Your task to perform on an android device: turn on notifications settings in the gmail app Image 0: 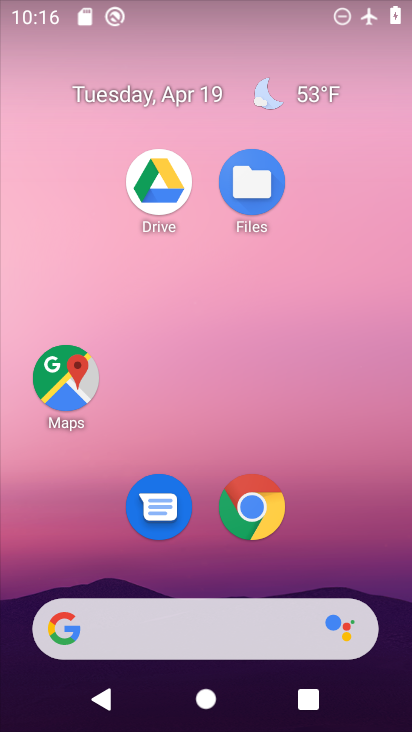
Step 0: drag from (334, 494) to (375, 103)
Your task to perform on an android device: turn on notifications settings in the gmail app Image 1: 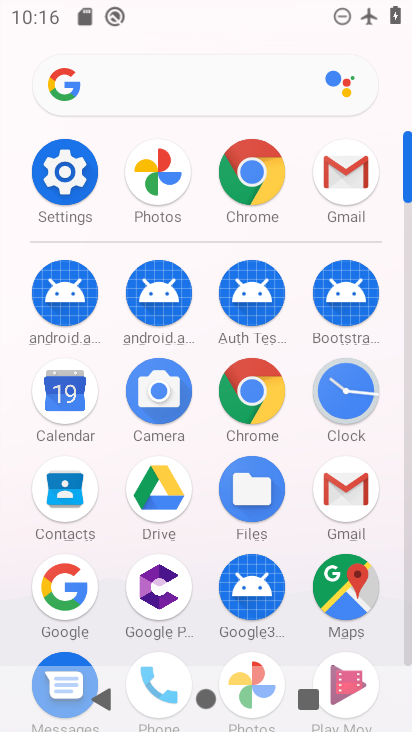
Step 1: click (354, 181)
Your task to perform on an android device: turn on notifications settings in the gmail app Image 2: 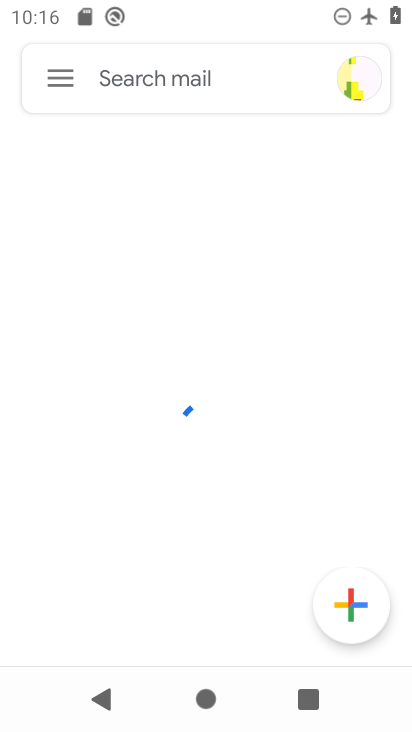
Step 2: click (55, 70)
Your task to perform on an android device: turn on notifications settings in the gmail app Image 3: 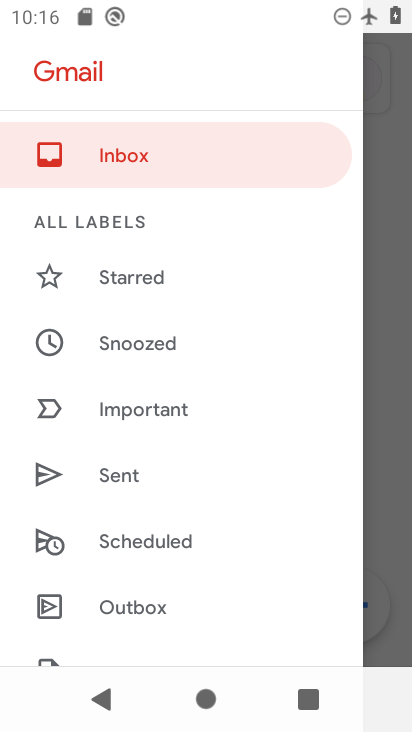
Step 3: drag from (201, 486) to (269, 126)
Your task to perform on an android device: turn on notifications settings in the gmail app Image 4: 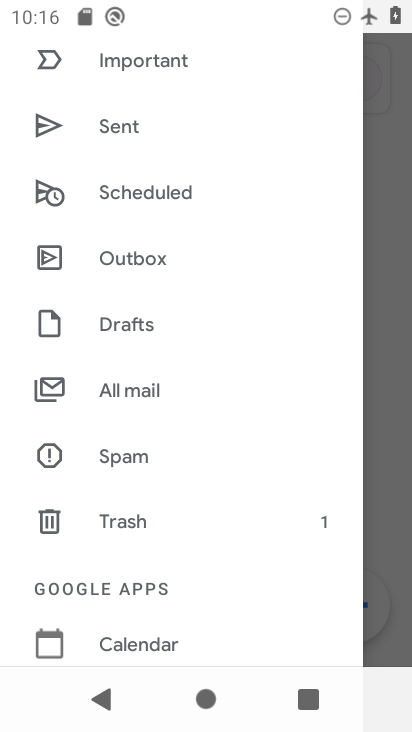
Step 4: drag from (218, 531) to (246, 210)
Your task to perform on an android device: turn on notifications settings in the gmail app Image 5: 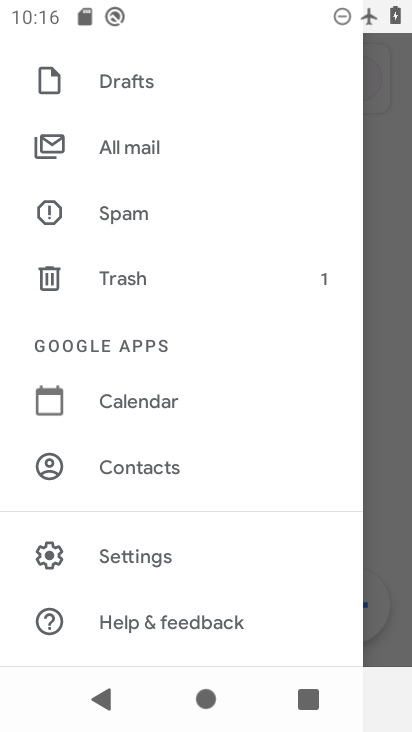
Step 5: click (152, 561)
Your task to perform on an android device: turn on notifications settings in the gmail app Image 6: 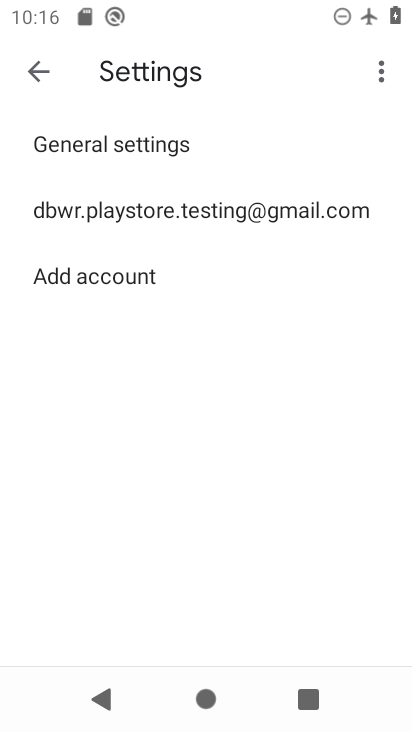
Step 6: click (275, 209)
Your task to perform on an android device: turn on notifications settings in the gmail app Image 7: 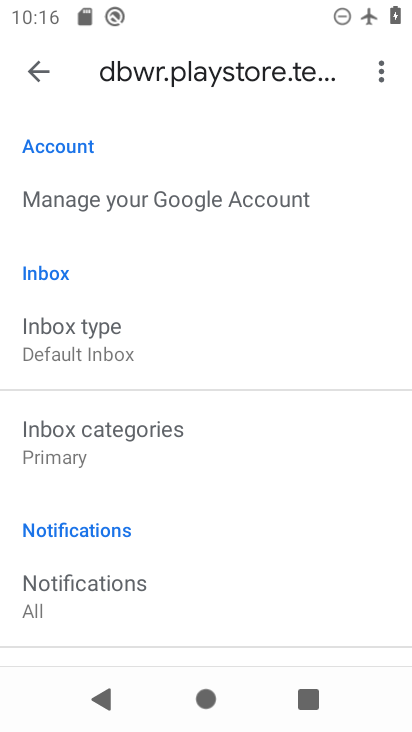
Step 7: drag from (227, 535) to (249, 233)
Your task to perform on an android device: turn on notifications settings in the gmail app Image 8: 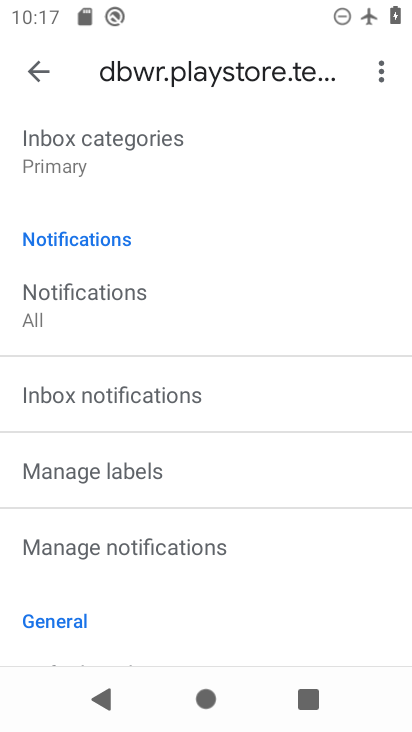
Step 8: click (223, 541)
Your task to perform on an android device: turn on notifications settings in the gmail app Image 9: 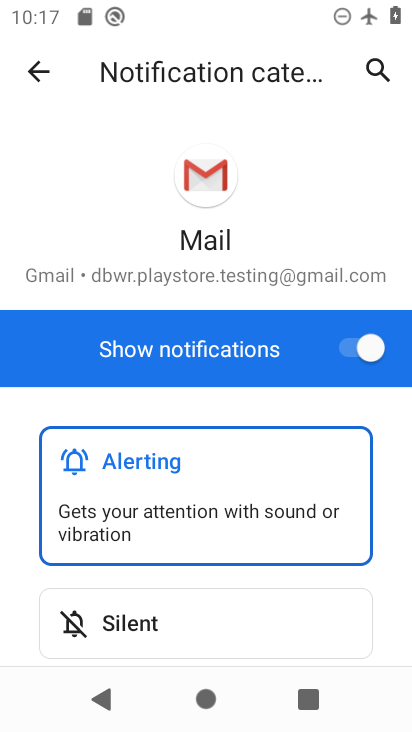
Step 9: task complete